Your task to perform on an android device: turn on javascript in the chrome app Image 0: 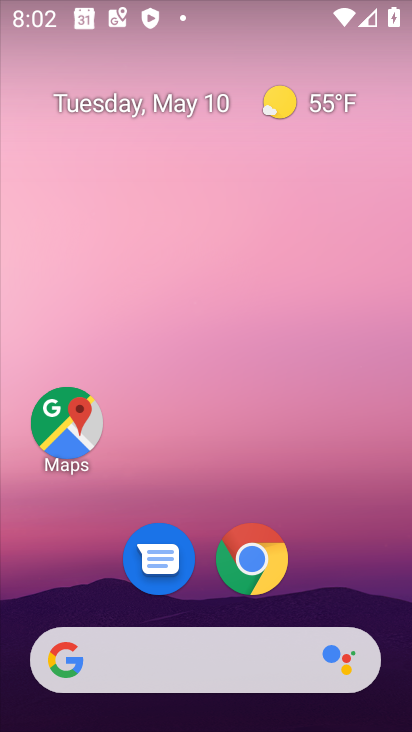
Step 0: click (259, 560)
Your task to perform on an android device: turn on javascript in the chrome app Image 1: 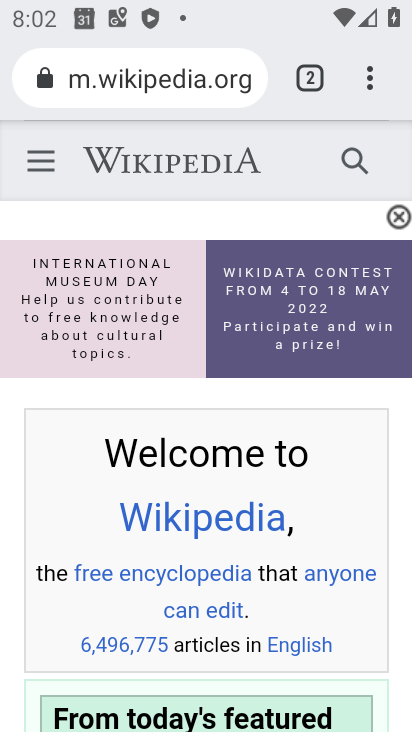
Step 1: click (370, 84)
Your task to perform on an android device: turn on javascript in the chrome app Image 2: 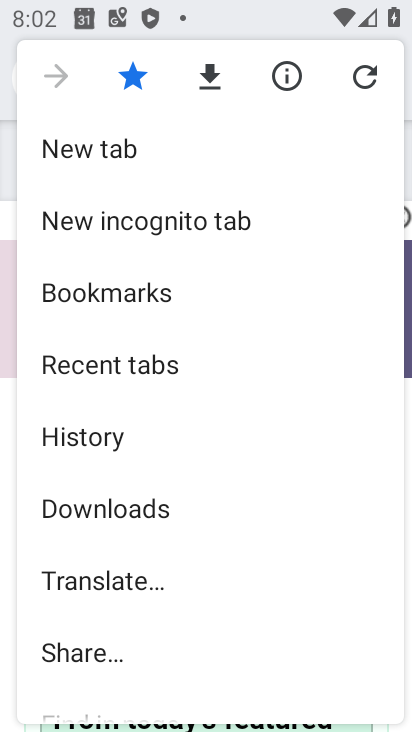
Step 2: drag from (129, 630) to (127, 297)
Your task to perform on an android device: turn on javascript in the chrome app Image 3: 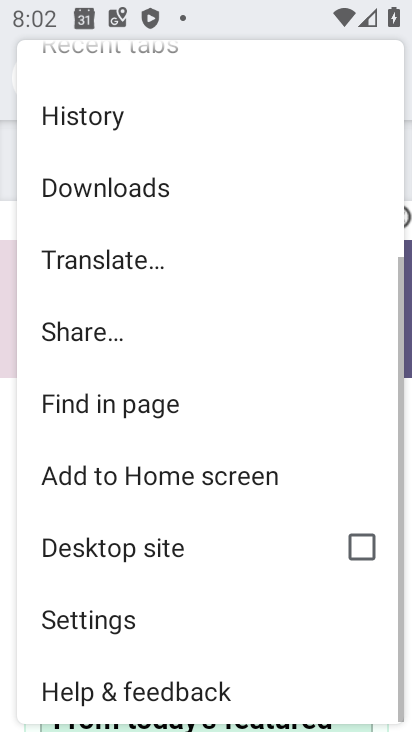
Step 3: click (109, 617)
Your task to perform on an android device: turn on javascript in the chrome app Image 4: 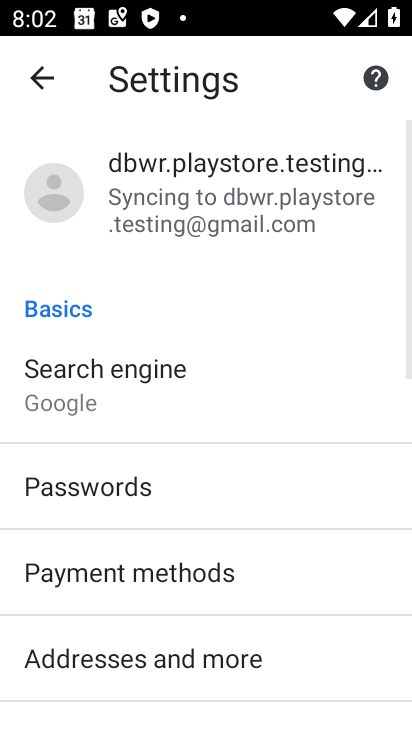
Step 4: drag from (127, 679) to (129, 468)
Your task to perform on an android device: turn on javascript in the chrome app Image 5: 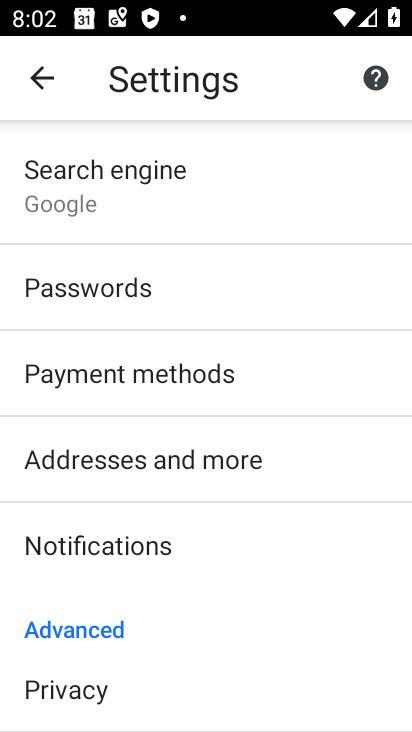
Step 5: drag from (145, 665) to (167, 370)
Your task to perform on an android device: turn on javascript in the chrome app Image 6: 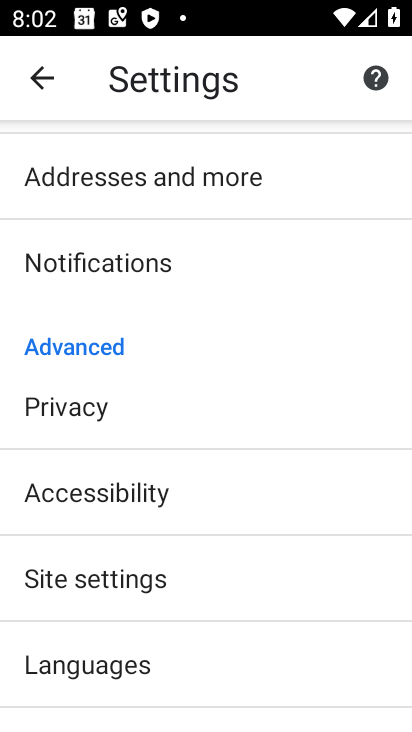
Step 6: click (102, 574)
Your task to perform on an android device: turn on javascript in the chrome app Image 7: 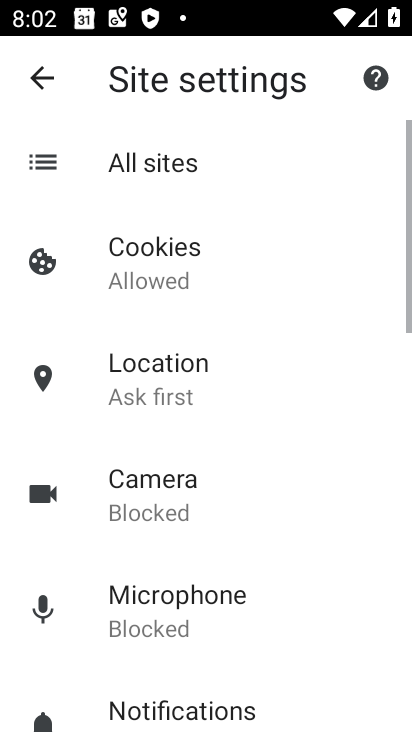
Step 7: drag from (207, 662) to (198, 310)
Your task to perform on an android device: turn on javascript in the chrome app Image 8: 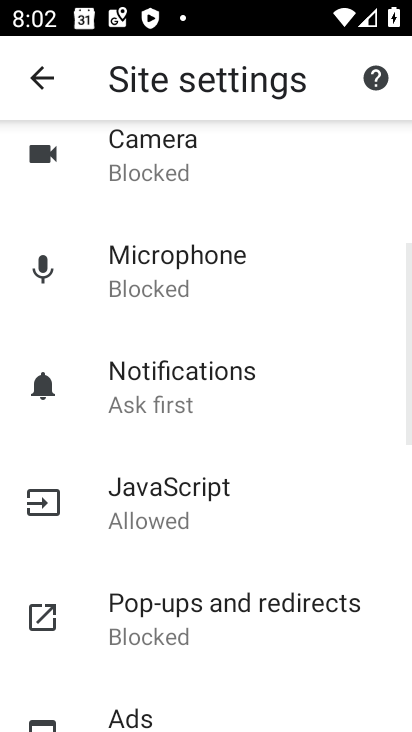
Step 8: click (164, 506)
Your task to perform on an android device: turn on javascript in the chrome app Image 9: 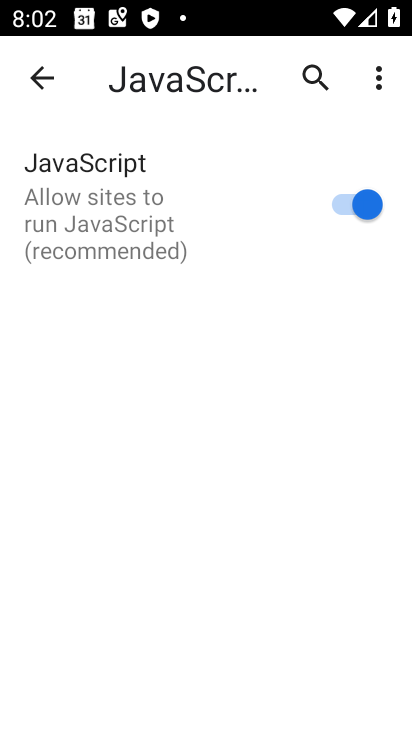
Step 9: task complete